Your task to perform on an android device: Open Wikipedia Image 0: 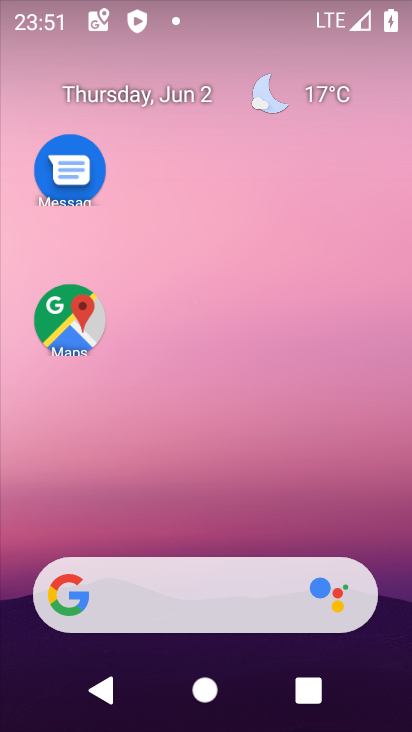
Step 0: press home button
Your task to perform on an android device: Open Wikipedia Image 1: 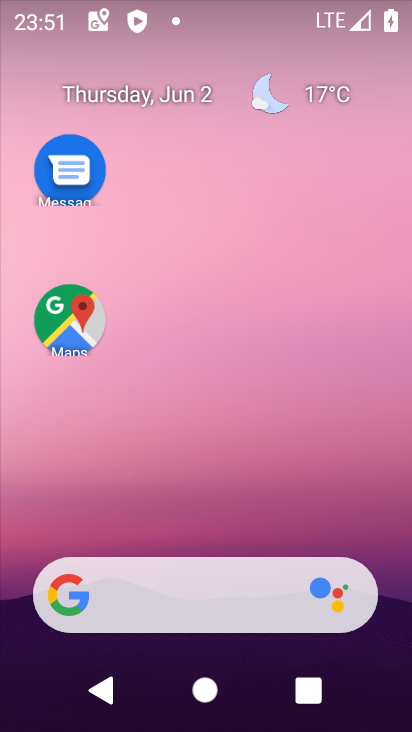
Step 1: drag from (231, 476) to (164, 25)
Your task to perform on an android device: Open Wikipedia Image 2: 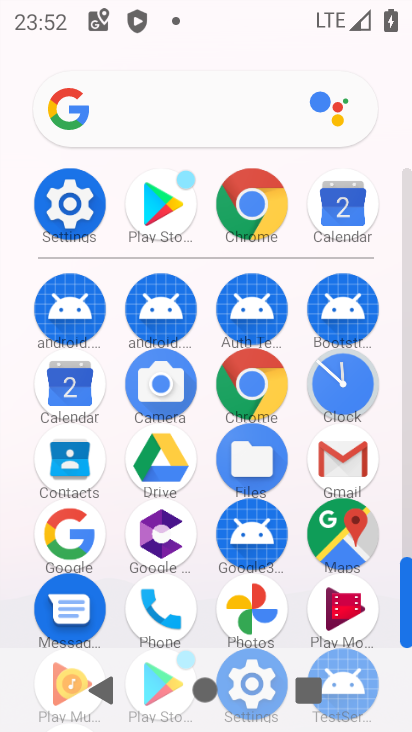
Step 2: click (250, 403)
Your task to perform on an android device: Open Wikipedia Image 3: 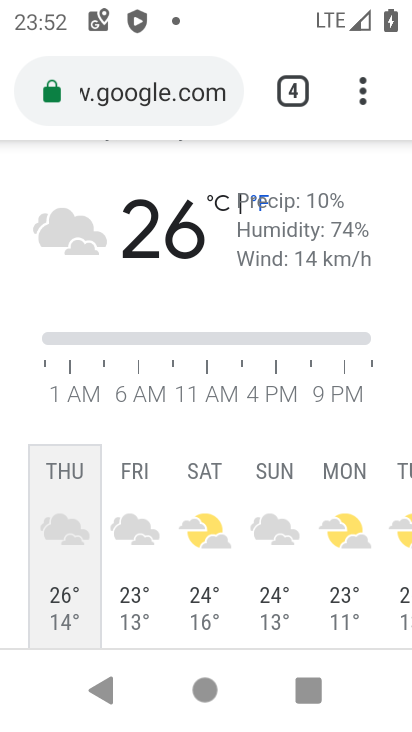
Step 3: click (133, 105)
Your task to perform on an android device: Open Wikipedia Image 4: 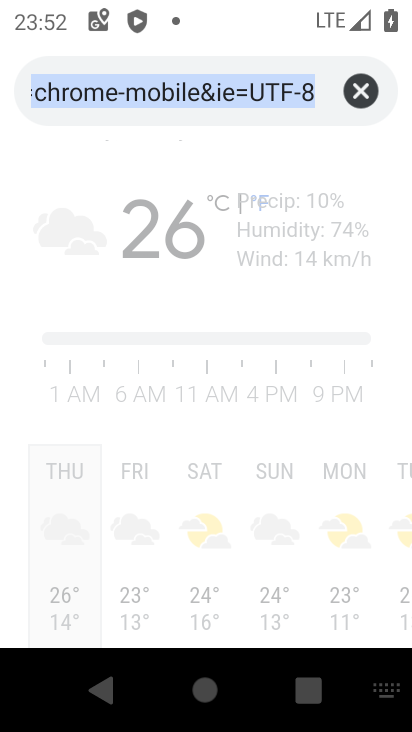
Step 4: type "Wikipedia"
Your task to perform on an android device: Open Wikipedia Image 5: 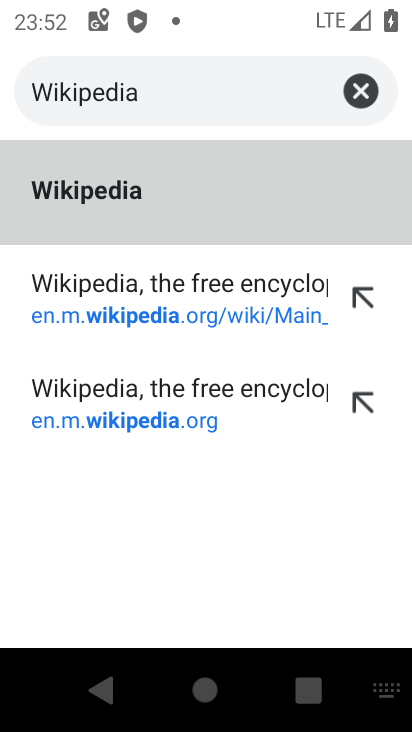
Step 5: click (157, 301)
Your task to perform on an android device: Open Wikipedia Image 6: 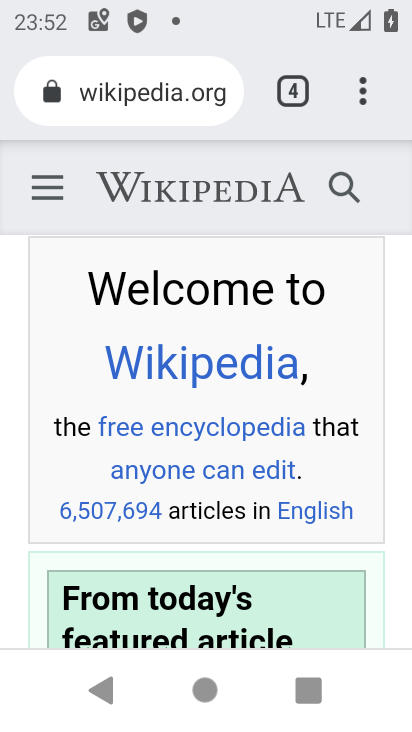
Step 6: task complete